Your task to perform on an android device: When is my next appointment? Image 0: 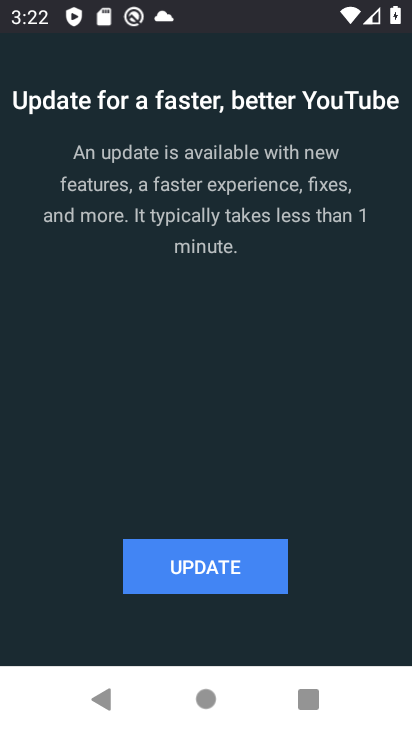
Step 0: press home button
Your task to perform on an android device: When is my next appointment? Image 1: 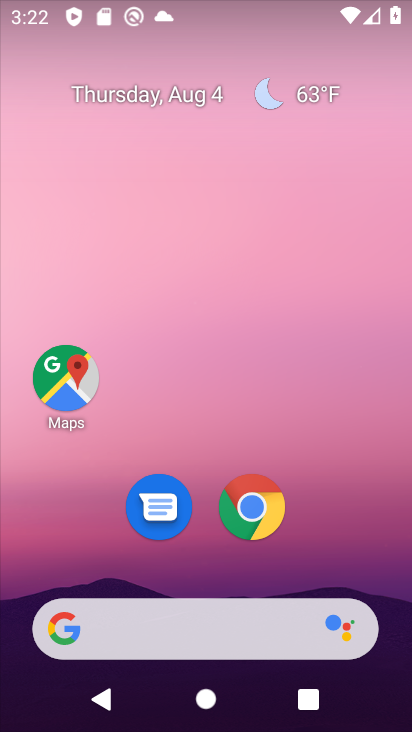
Step 1: drag from (24, 679) to (248, 11)
Your task to perform on an android device: When is my next appointment? Image 2: 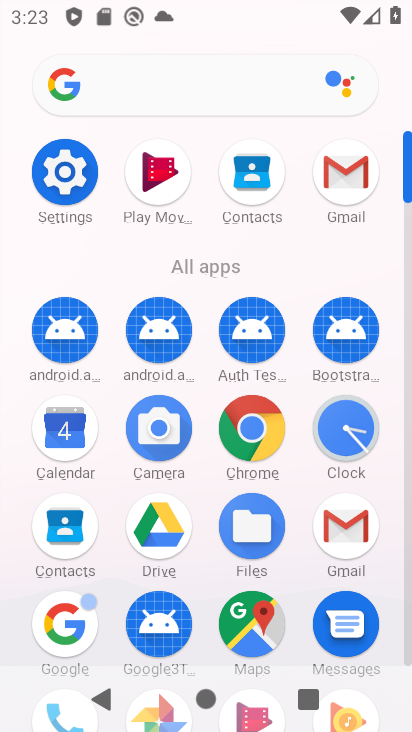
Step 2: click (88, 441)
Your task to perform on an android device: When is my next appointment? Image 3: 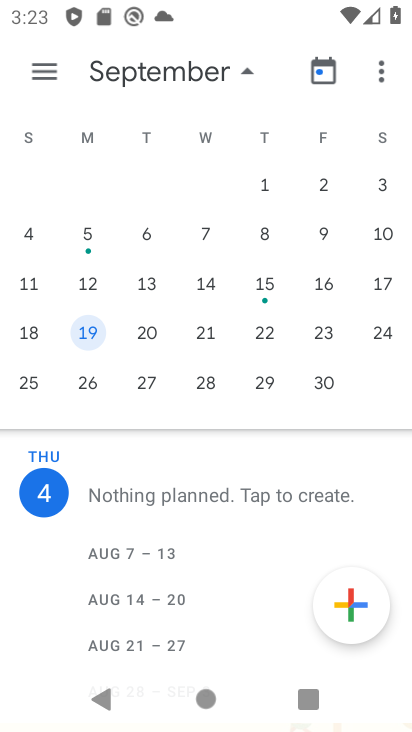
Step 3: drag from (13, 189) to (404, 200)
Your task to perform on an android device: When is my next appointment? Image 4: 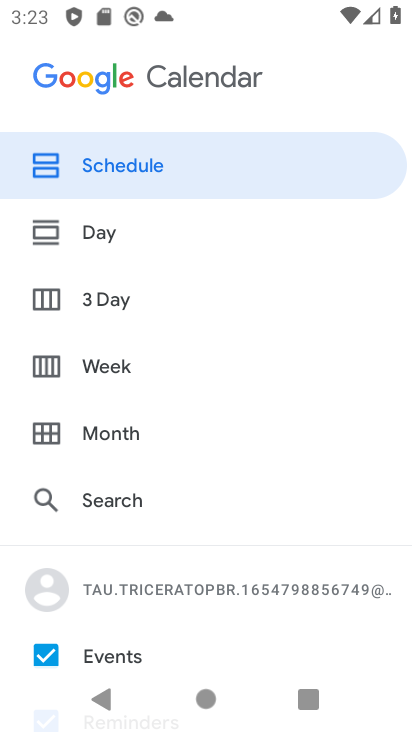
Step 4: click (184, 148)
Your task to perform on an android device: When is my next appointment? Image 5: 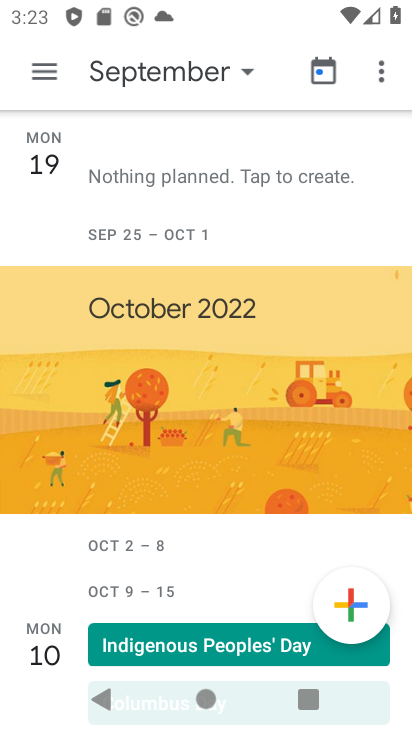
Step 5: click (246, 75)
Your task to perform on an android device: When is my next appointment? Image 6: 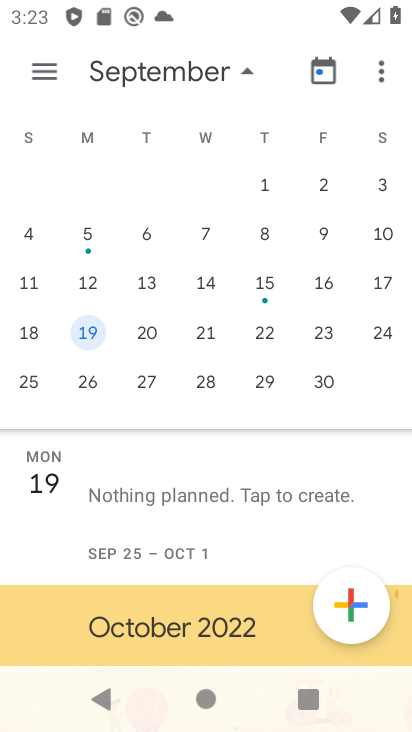
Step 6: task complete